Your task to perform on an android device: find snoozed emails in the gmail app Image 0: 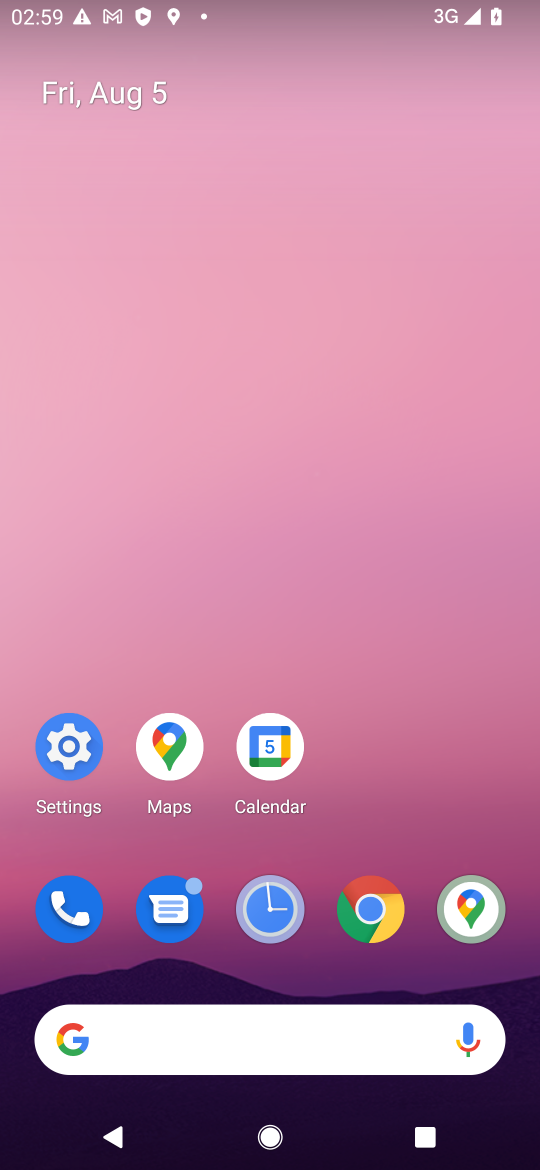
Step 0: drag from (388, 824) to (347, 110)
Your task to perform on an android device: find snoozed emails in the gmail app Image 1: 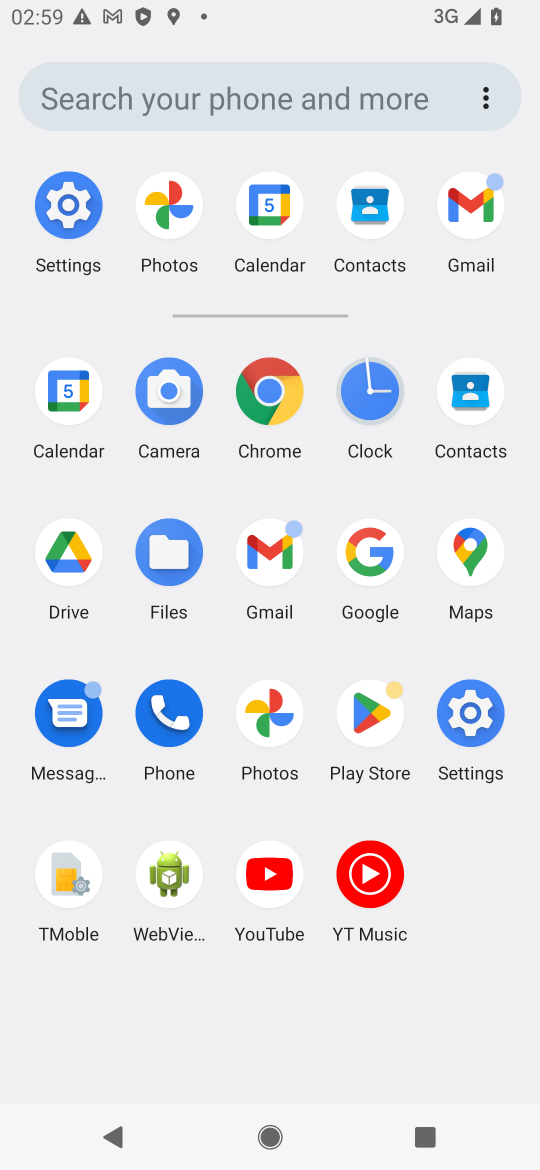
Step 1: click (468, 198)
Your task to perform on an android device: find snoozed emails in the gmail app Image 2: 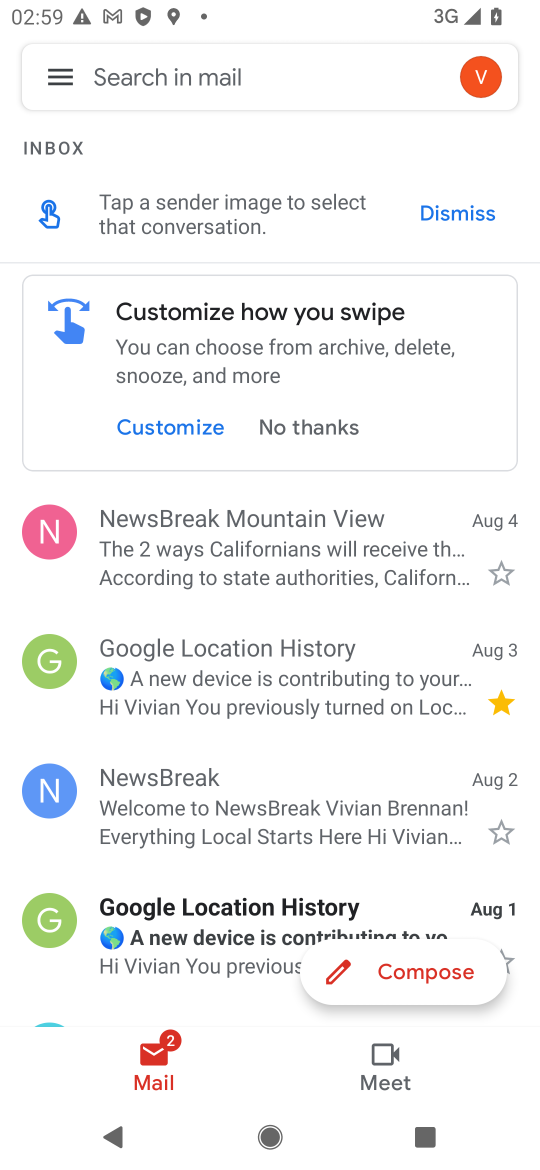
Step 2: click (58, 73)
Your task to perform on an android device: find snoozed emails in the gmail app Image 3: 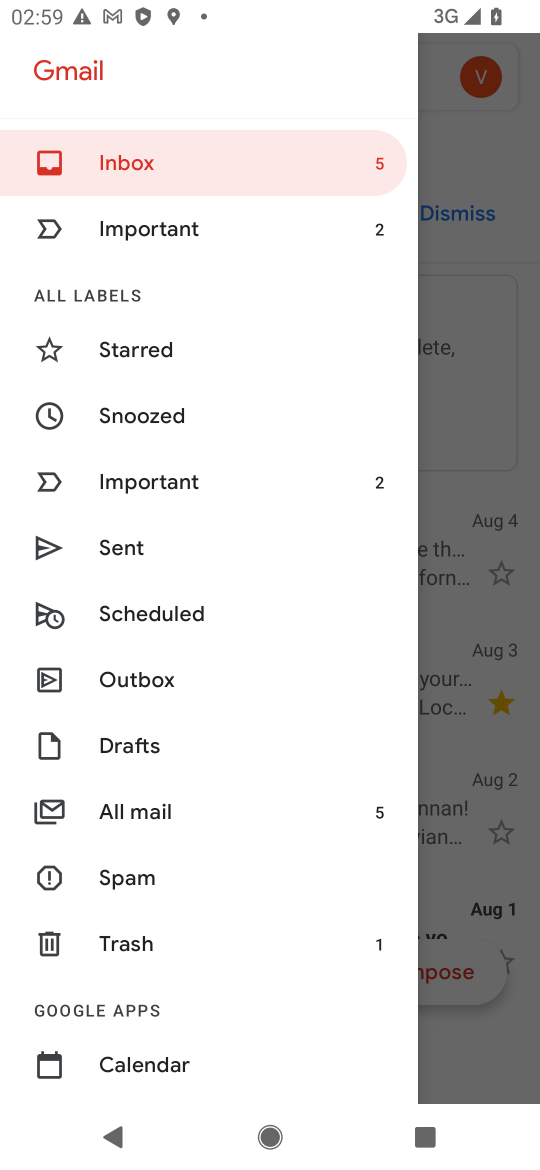
Step 3: click (147, 414)
Your task to perform on an android device: find snoozed emails in the gmail app Image 4: 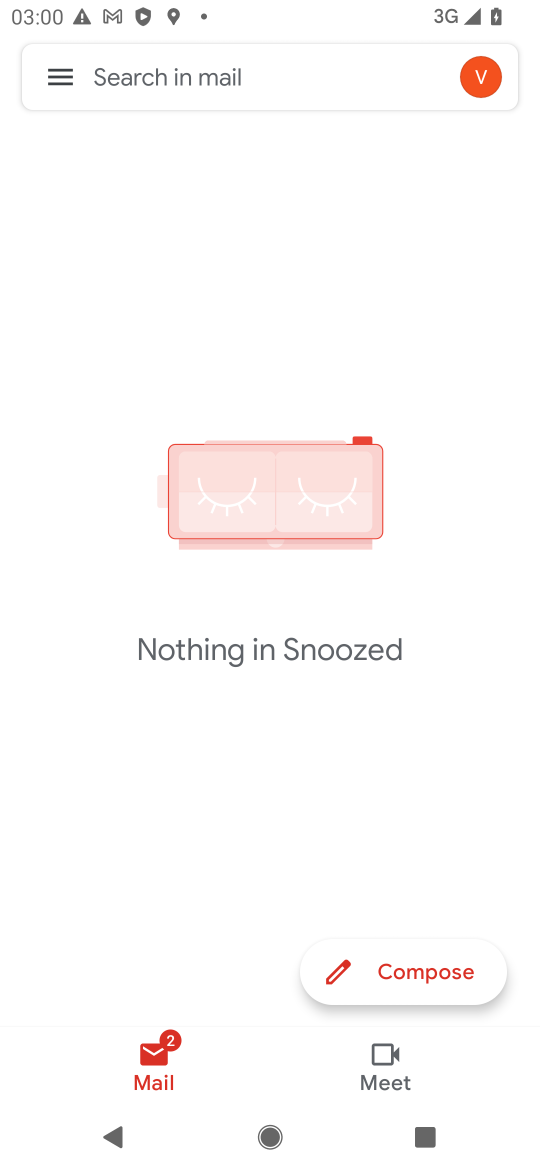
Step 4: task complete